Your task to perform on an android device: turn notification dots off Image 0: 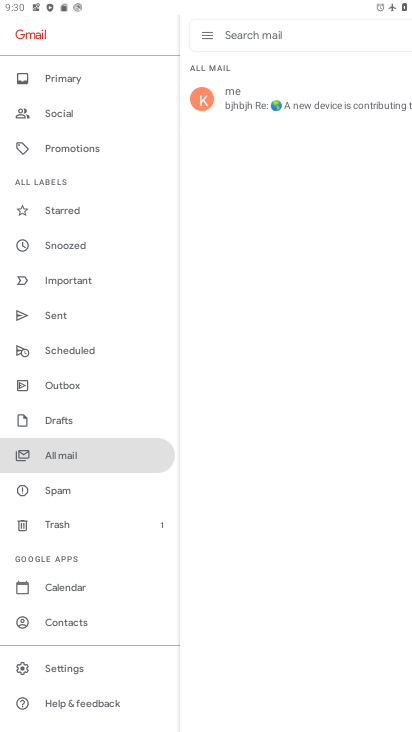
Step 0: press home button
Your task to perform on an android device: turn notification dots off Image 1: 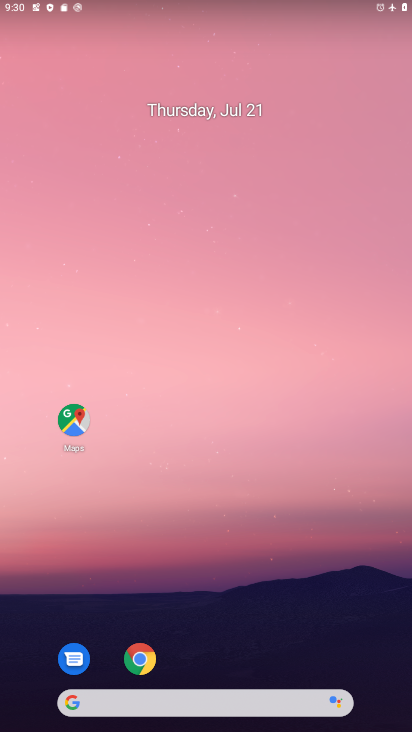
Step 1: drag from (223, 684) to (212, 118)
Your task to perform on an android device: turn notification dots off Image 2: 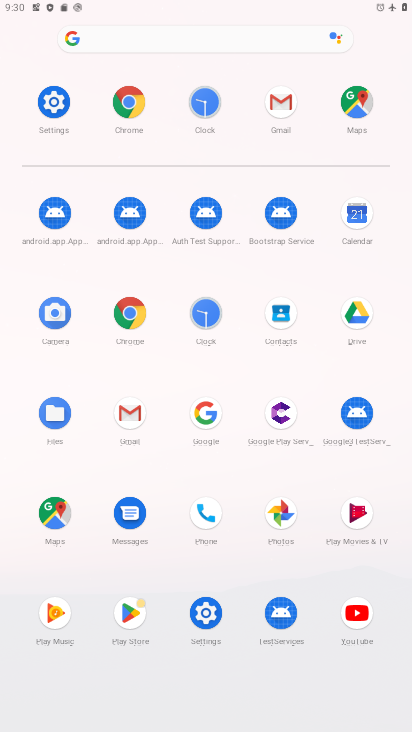
Step 2: click (61, 119)
Your task to perform on an android device: turn notification dots off Image 3: 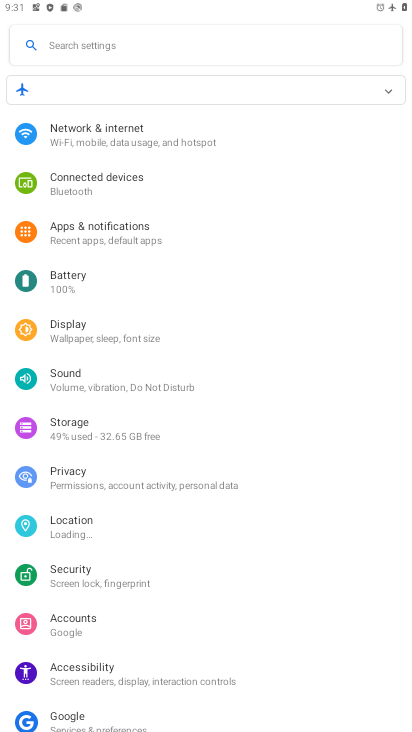
Step 3: click (88, 227)
Your task to perform on an android device: turn notification dots off Image 4: 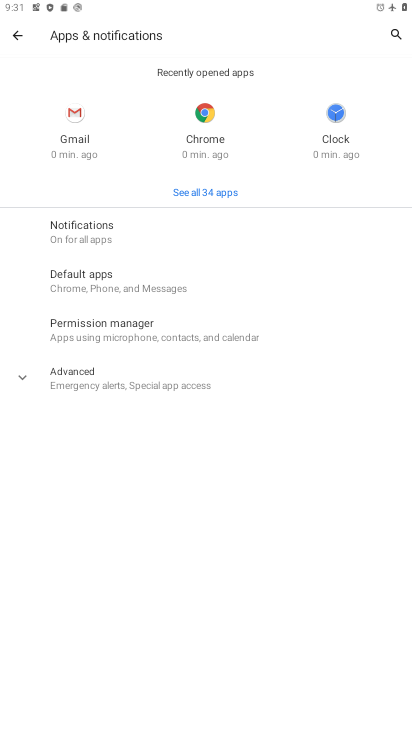
Step 4: click (86, 232)
Your task to perform on an android device: turn notification dots off Image 5: 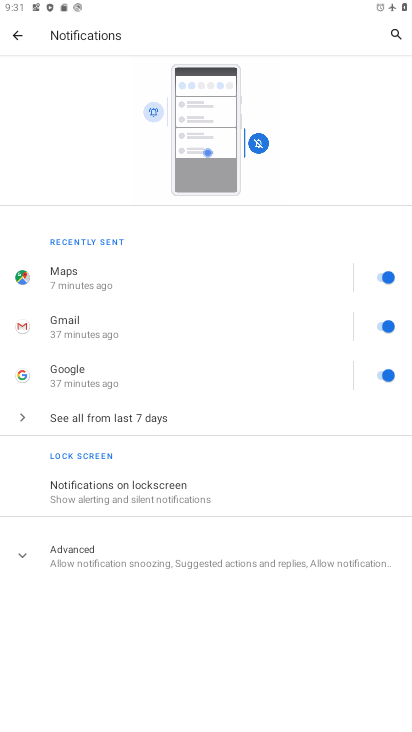
Step 5: click (144, 557)
Your task to perform on an android device: turn notification dots off Image 6: 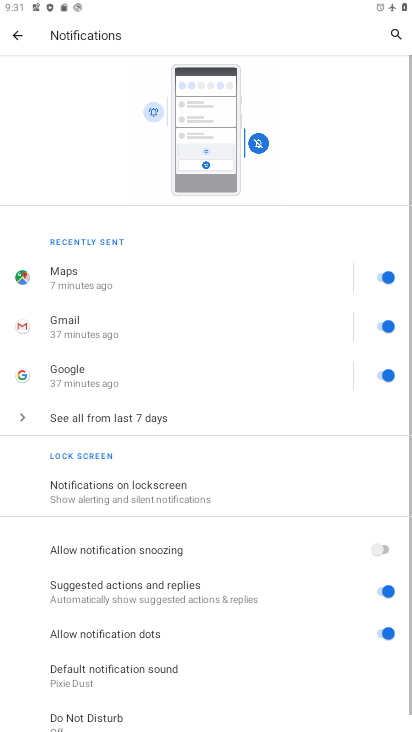
Step 6: drag from (142, 554) to (142, 262)
Your task to perform on an android device: turn notification dots off Image 7: 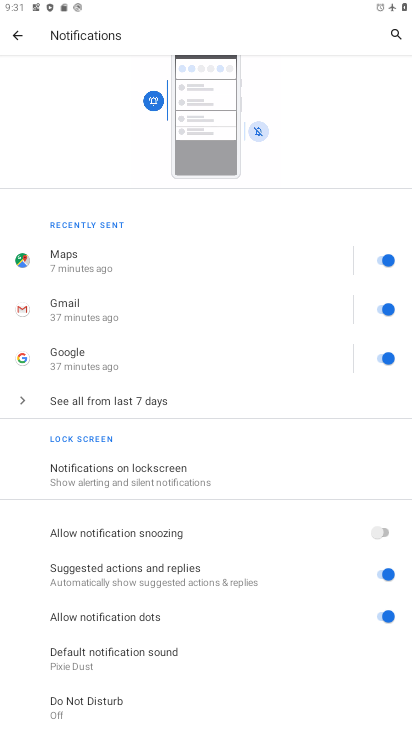
Step 7: click (387, 618)
Your task to perform on an android device: turn notification dots off Image 8: 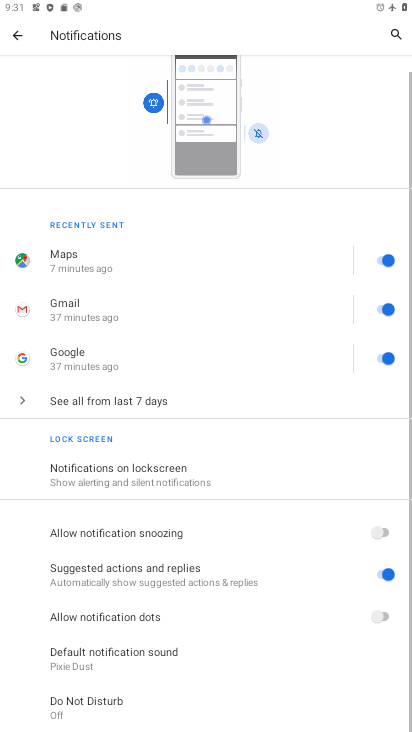
Step 8: task complete